Your task to perform on an android device: install app "Facebook Messenger" Image 0: 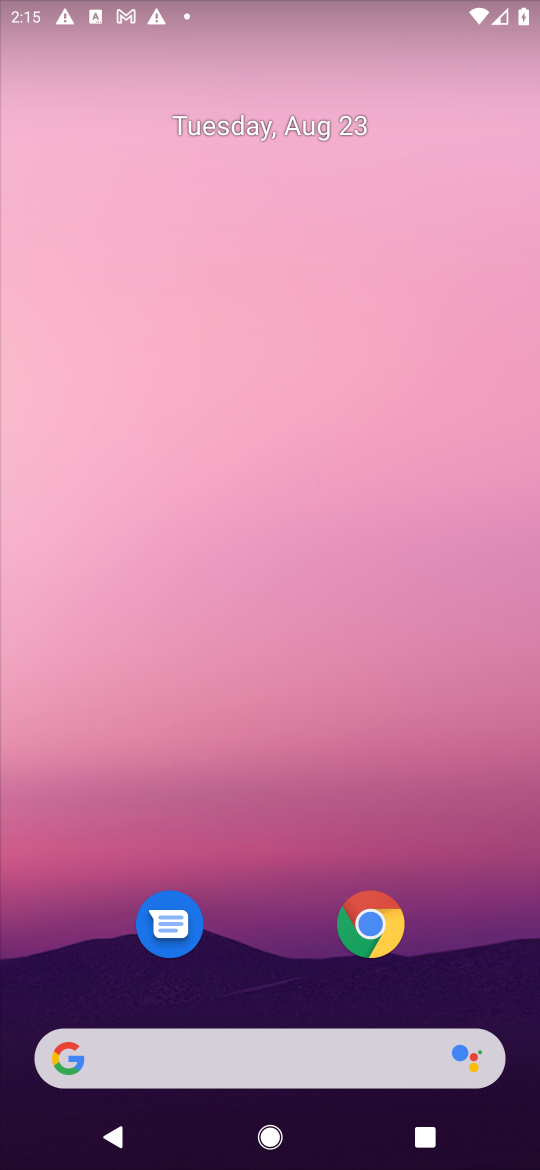
Step 0: press home button
Your task to perform on an android device: install app "Facebook Messenger" Image 1: 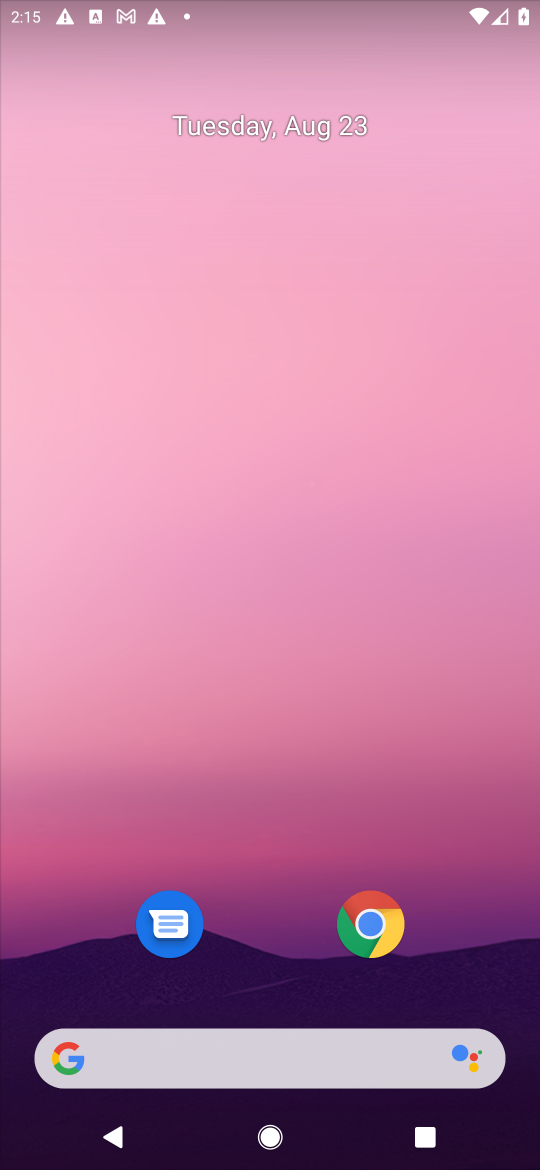
Step 1: drag from (460, 897) to (495, 179)
Your task to perform on an android device: install app "Facebook Messenger" Image 2: 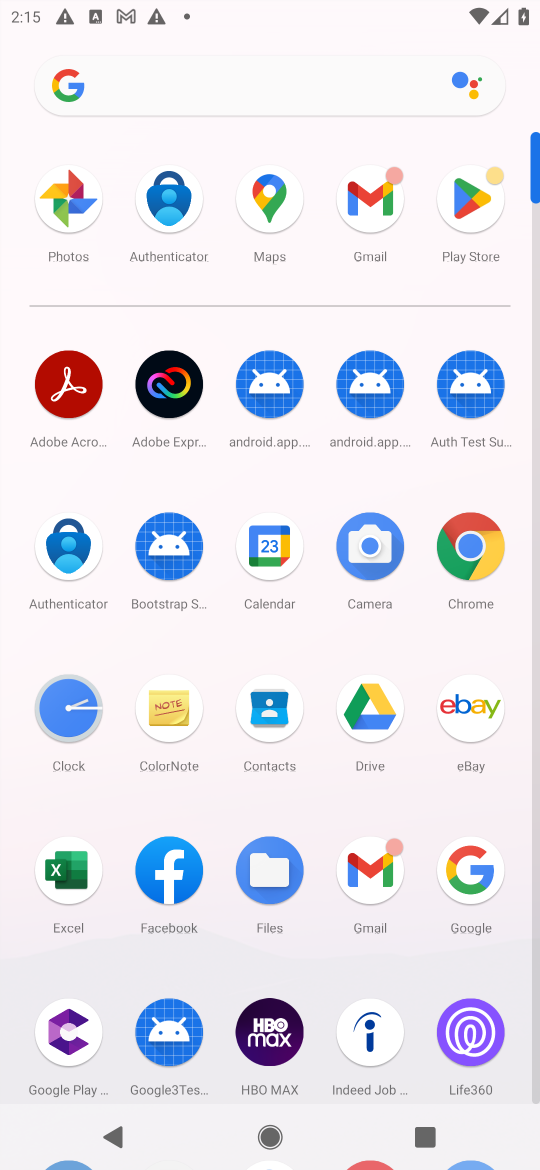
Step 2: click (478, 197)
Your task to perform on an android device: install app "Facebook Messenger" Image 3: 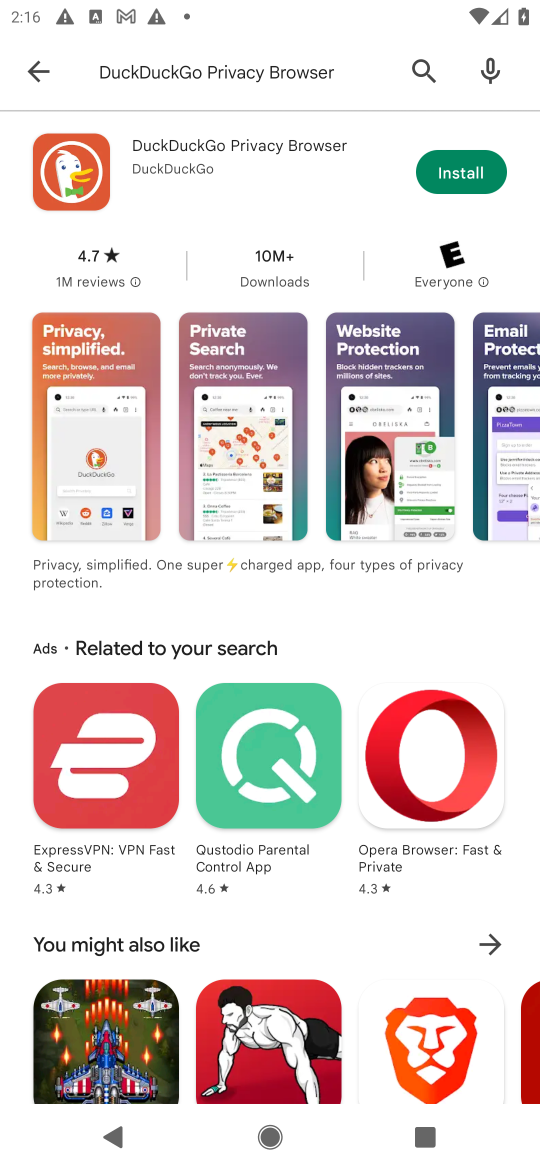
Step 3: press back button
Your task to perform on an android device: install app "Facebook Messenger" Image 4: 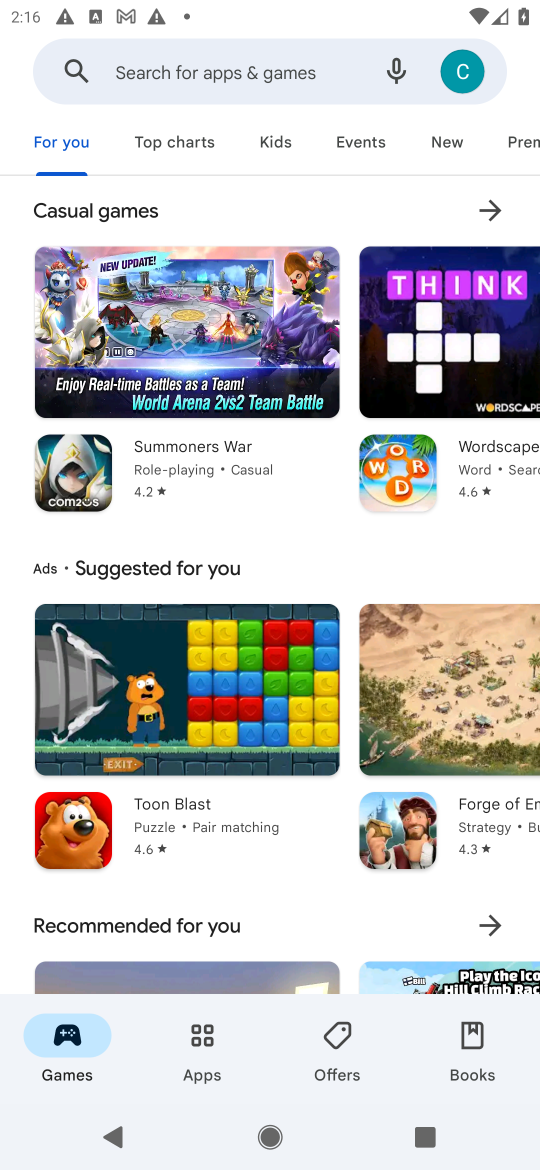
Step 4: click (268, 67)
Your task to perform on an android device: install app "Facebook Messenger" Image 5: 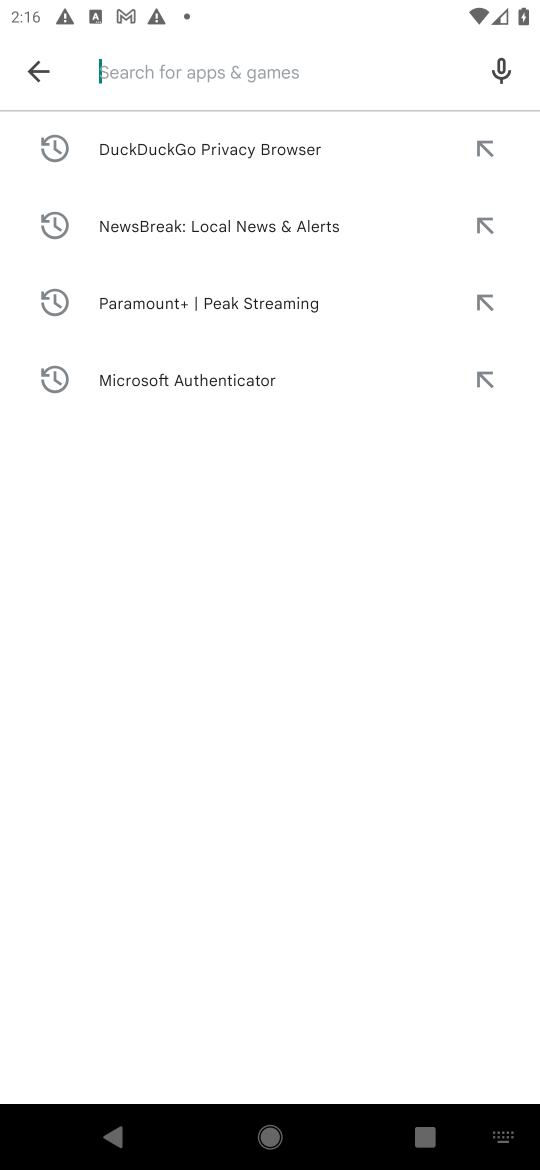
Step 5: type "Facebook Messenger"
Your task to perform on an android device: install app "Facebook Messenger" Image 6: 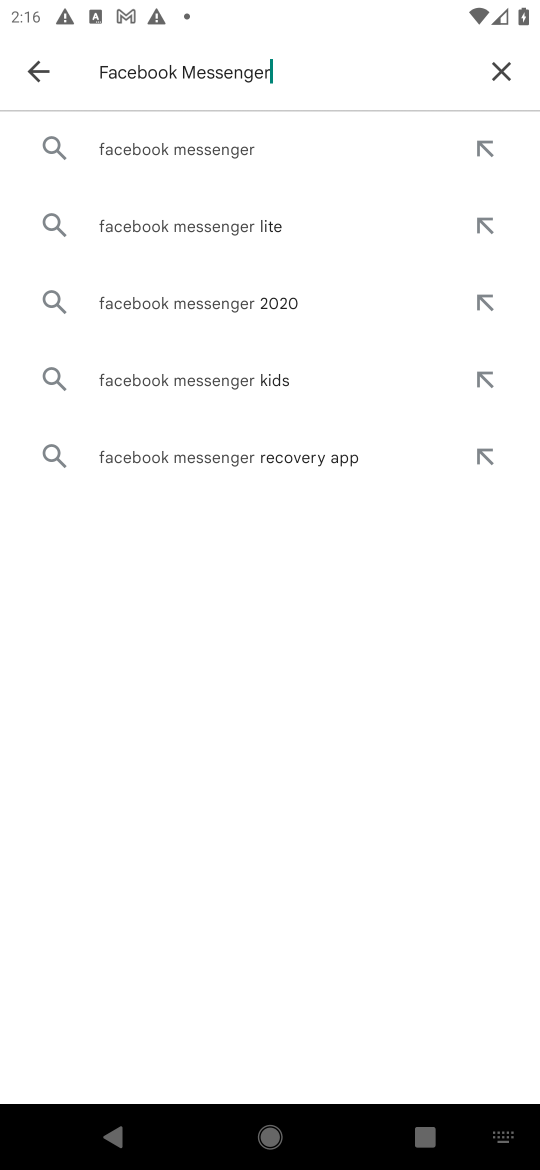
Step 6: press enter
Your task to perform on an android device: install app "Facebook Messenger" Image 7: 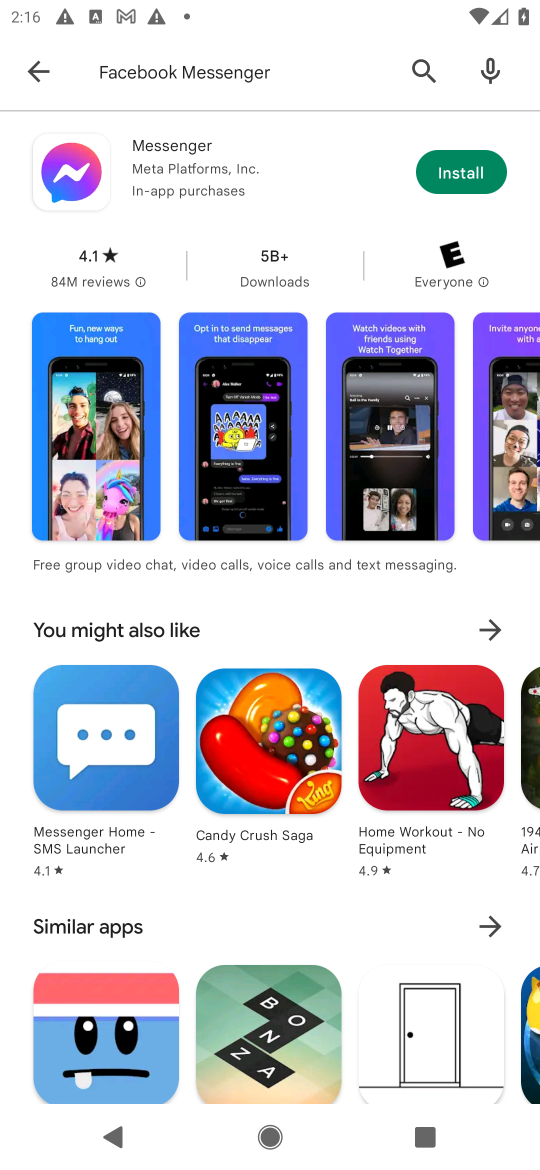
Step 7: click (459, 166)
Your task to perform on an android device: install app "Facebook Messenger" Image 8: 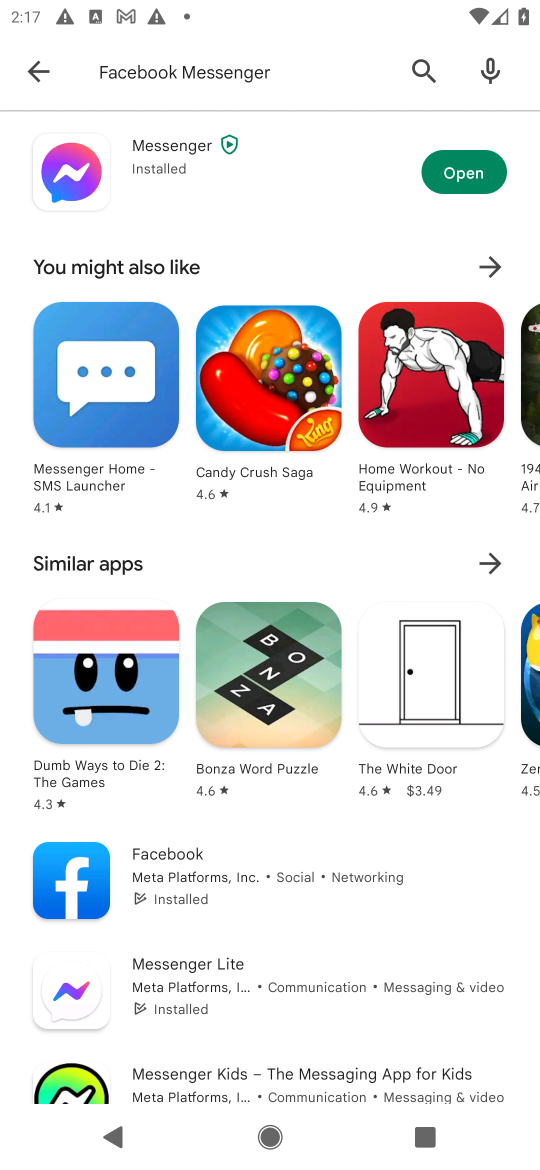
Step 8: task complete